Your task to perform on an android device: turn off airplane mode Image 0: 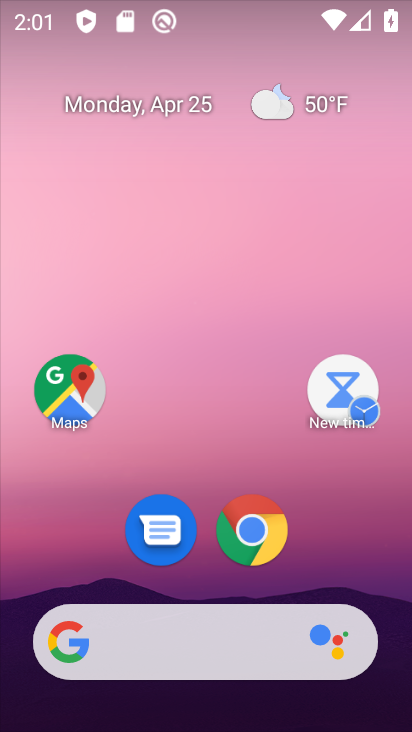
Step 0: drag from (211, 598) to (337, 15)
Your task to perform on an android device: turn off airplane mode Image 1: 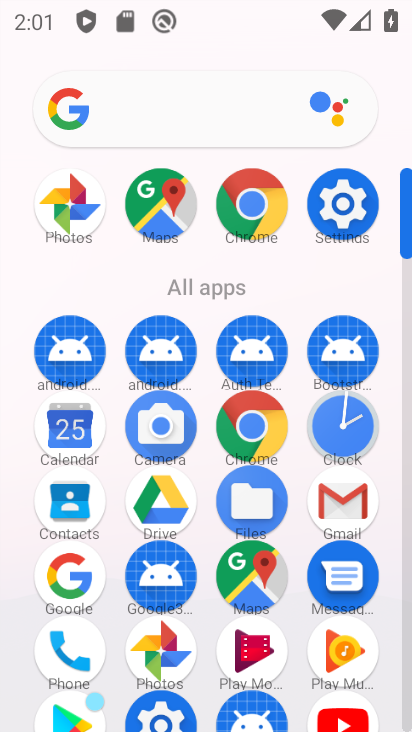
Step 1: click (338, 213)
Your task to perform on an android device: turn off airplane mode Image 2: 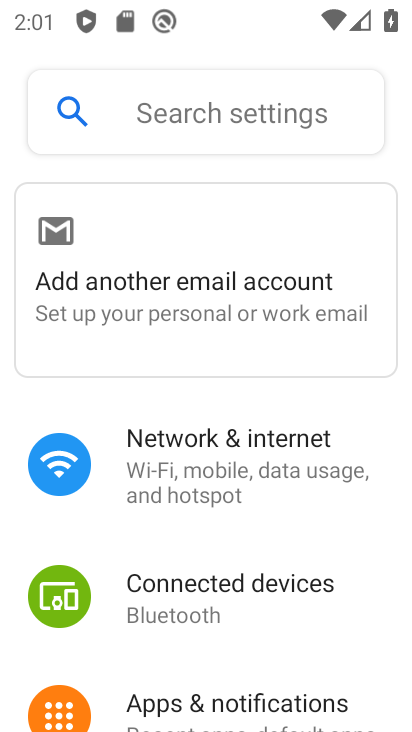
Step 2: click (278, 487)
Your task to perform on an android device: turn off airplane mode Image 3: 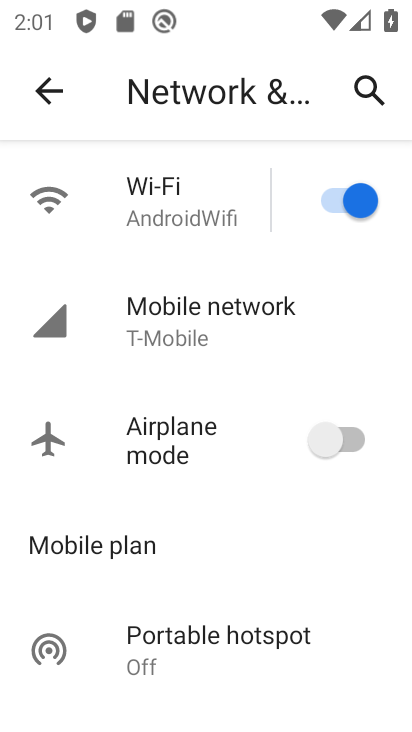
Step 3: task complete